Your task to perform on an android device: Open Google Chrome and open the bookmarks view Image 0: 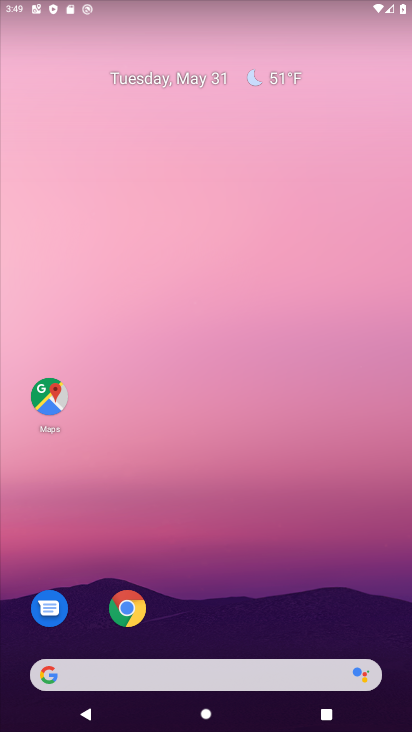
Step 0: drag from (274, 634) to (251, 251)
Your task to perform on an android device: Open Google Chrome and open the bookmarks view Image 1: 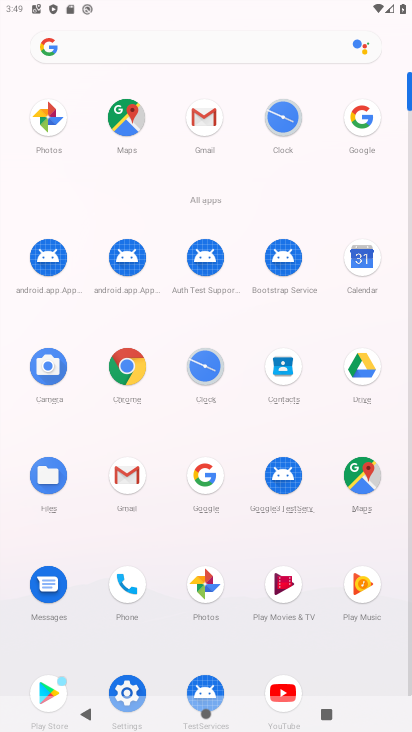
Step 1: click (127, 365)
Your task to perform on an android device: Open Google Chrome and open the bookmarks view Image 2: 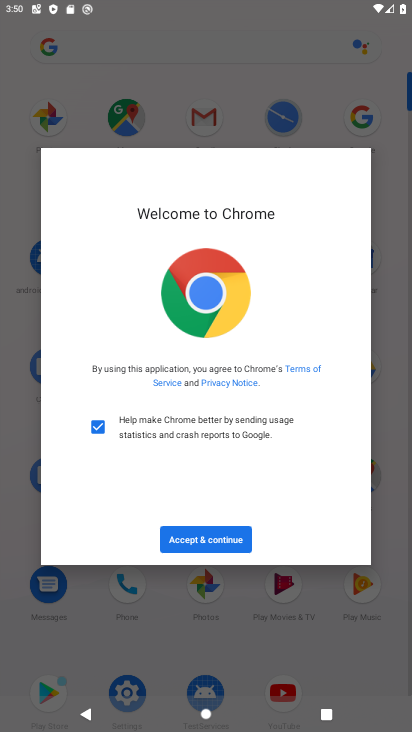
Step 2: click (222, 539)
Your task to perform on an android device: Open Google Chrome and open the bookmarks view Image 3: 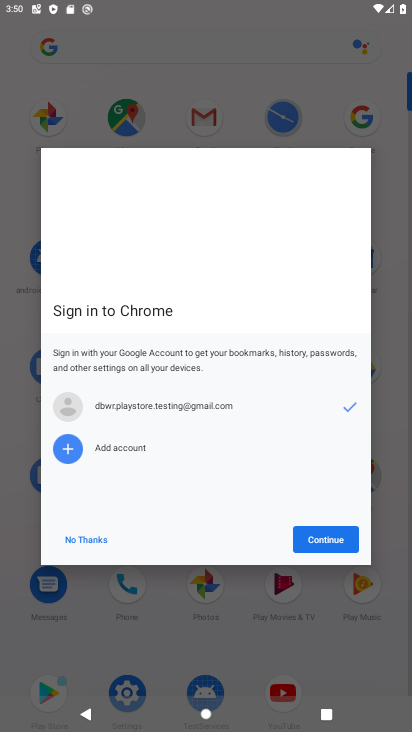
Step 3: click (334, 536)
Your task to perform on an android device: Open Google Chrome and open the bookmarks view Image 4: 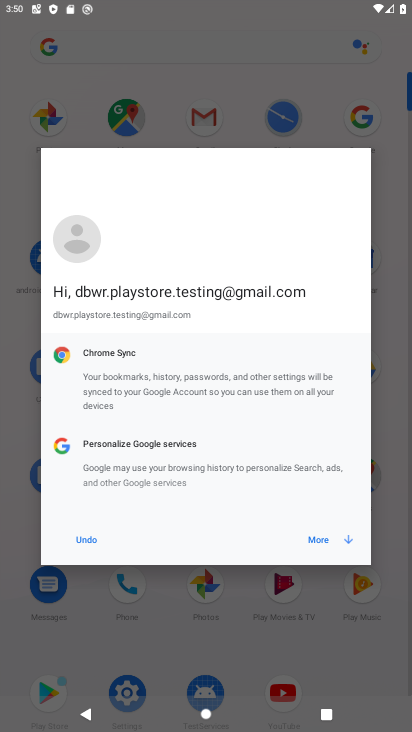
Step 4: click (327, 538)
Your task to perform on an android device: Open Google Chrome and open the bookmarks view Image 5: 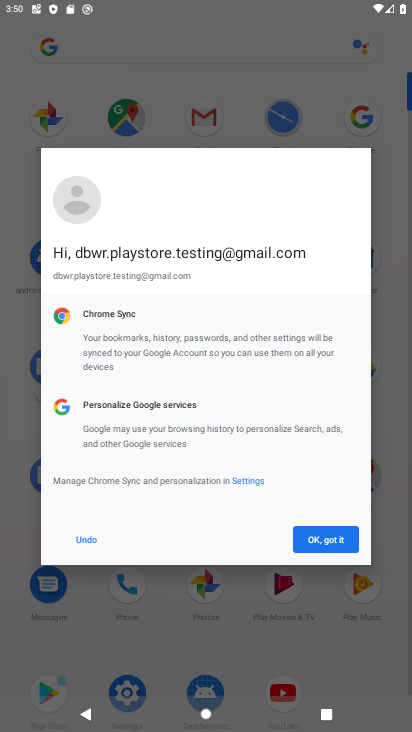
Step 5: click (327, 538)
Your task to perform on an android device: Open Google Chrome and open the bookmarks view Image 6: 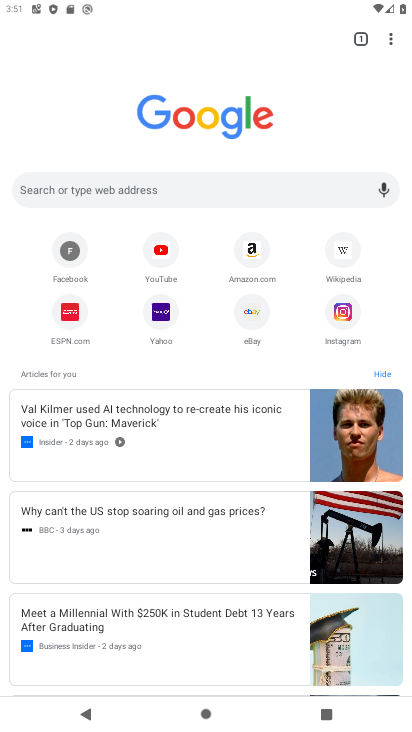
Step 6: click (388, 41)
Your task to perform on an android device: Open Google Chrome and open the bookmarks view Image 7: 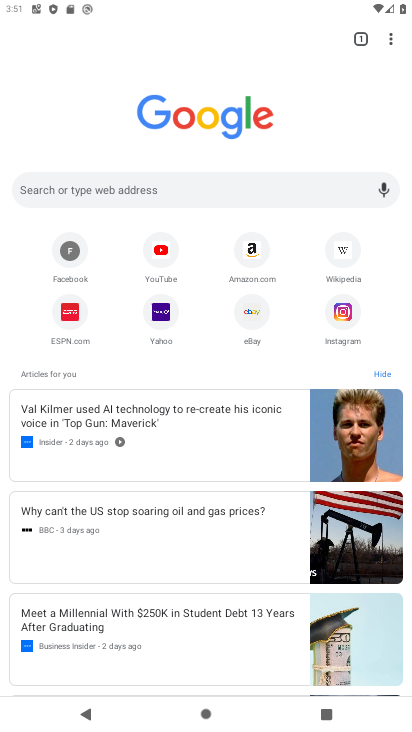
Step 7: click (392, 33)
Your task to perform on an android device: Open Google Chrome and open the bookmarks view Image 8: 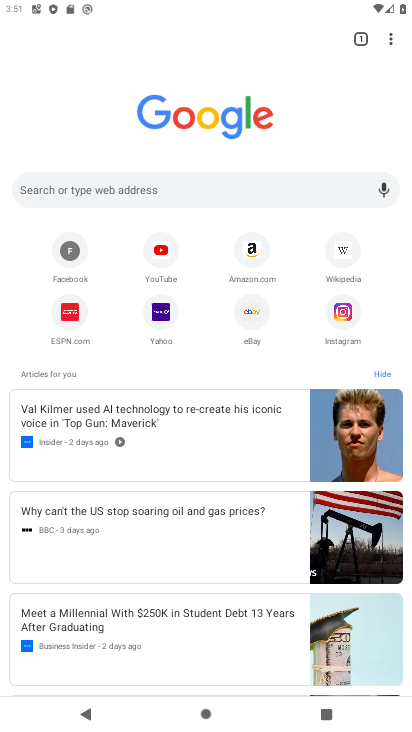
Step 8: click (384, 47)
Your task to perform on an android device: Open Google Chrome and open the bookmarks view Image 9: 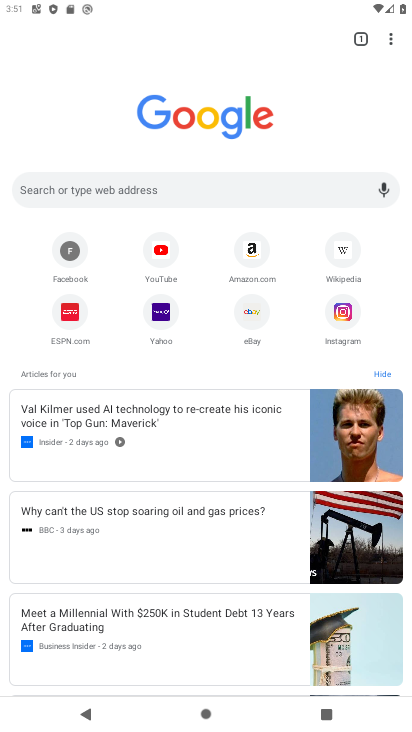
Step 9: click (392, 41)
Your task to perform on an android device: Open Google Chrome and open the bookmarks view Image 10: 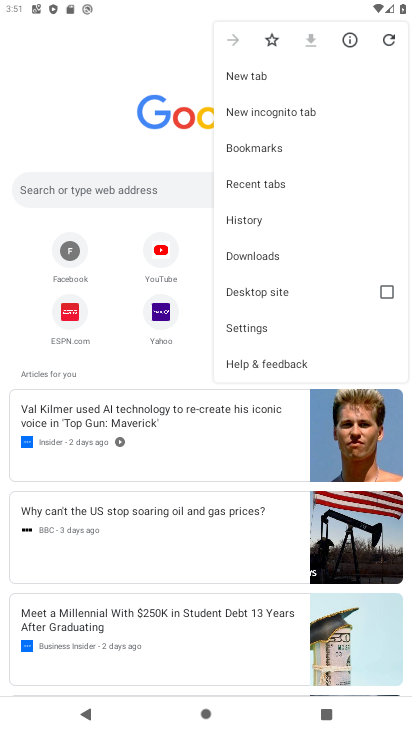
Step 10: click (267, 148)
Your task to perform on an android device: Open Google Chrome and open the bookmarks view Image 11: 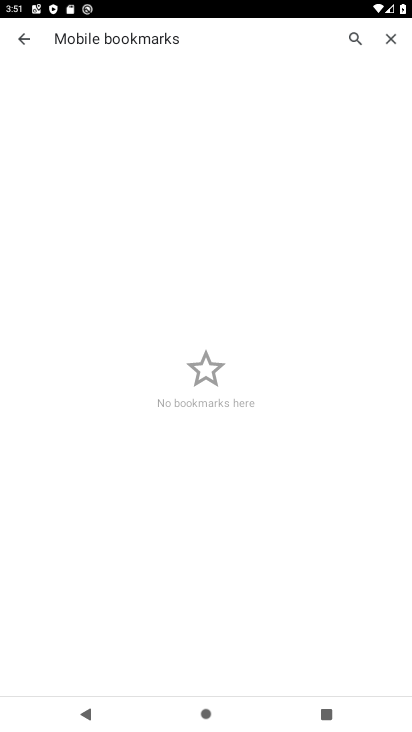
Step 11: task complete